Your task to perform on an android device: open app "YouTube Kids" (install if not already installed) and go to login screen Image 0: 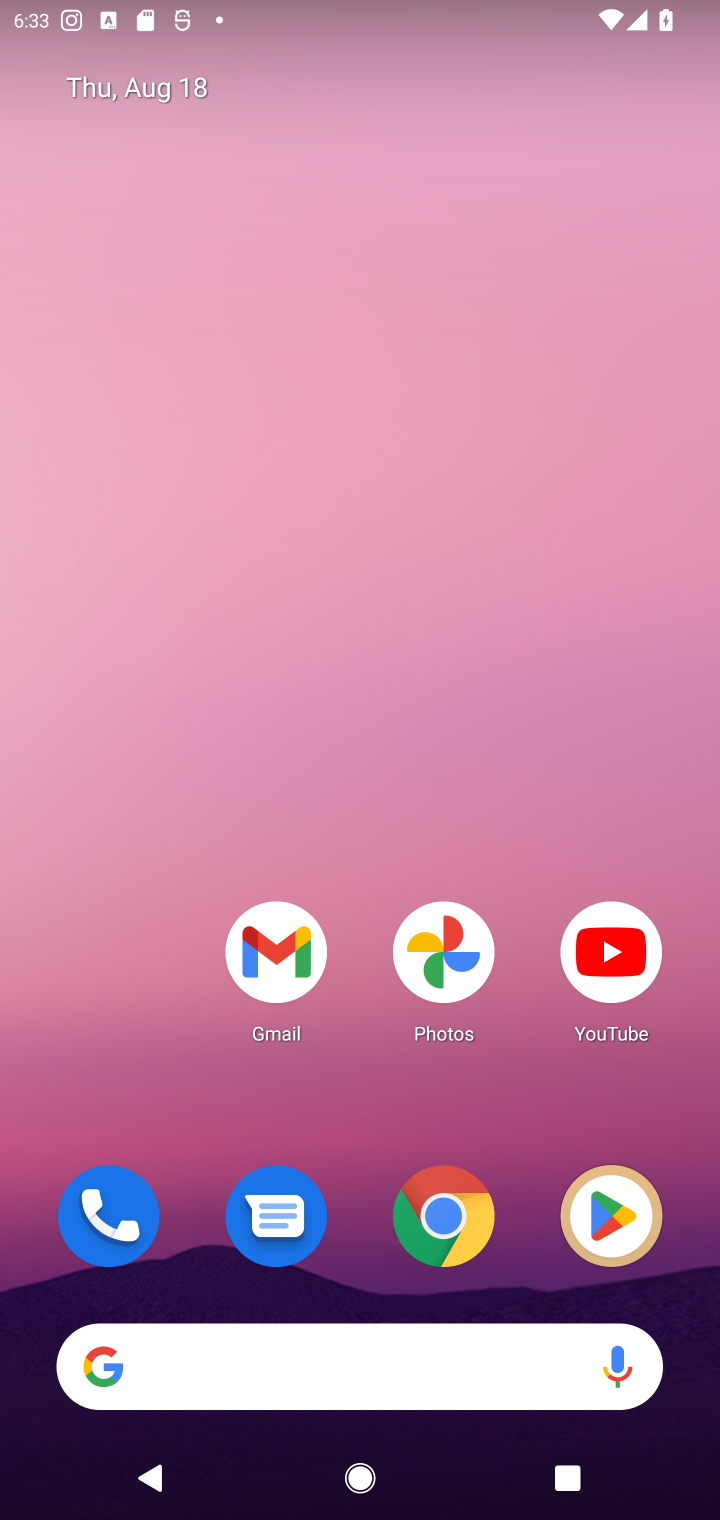
Step 0: click (646, 1213)
Your task to perform on an android device: open app "YouTube Kids" (install if not already installed) and go to login screen Image 1: 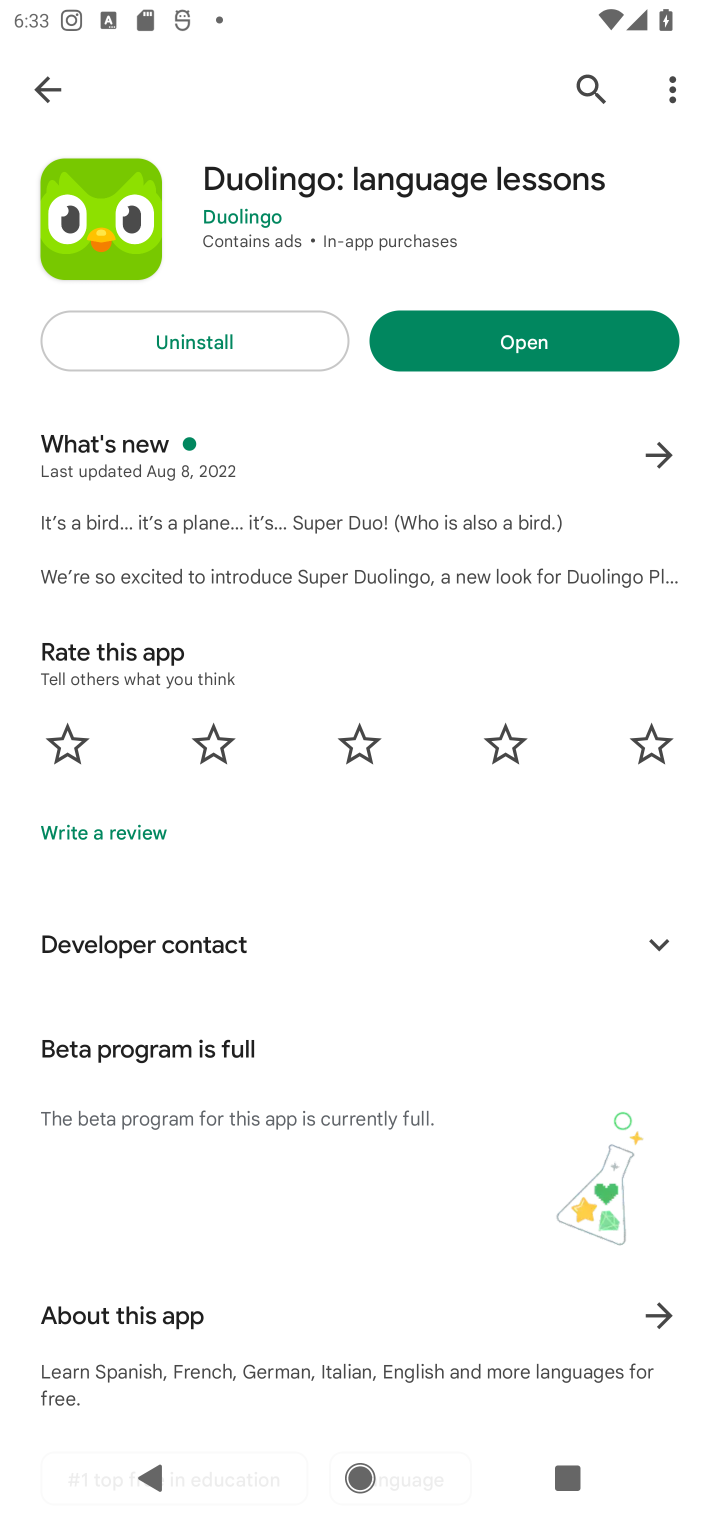
Step 1: click (576, 92)
Your task to perform on an android device: open app "YouTube Kids" (install if not already installed) and go to login screen Image 2: 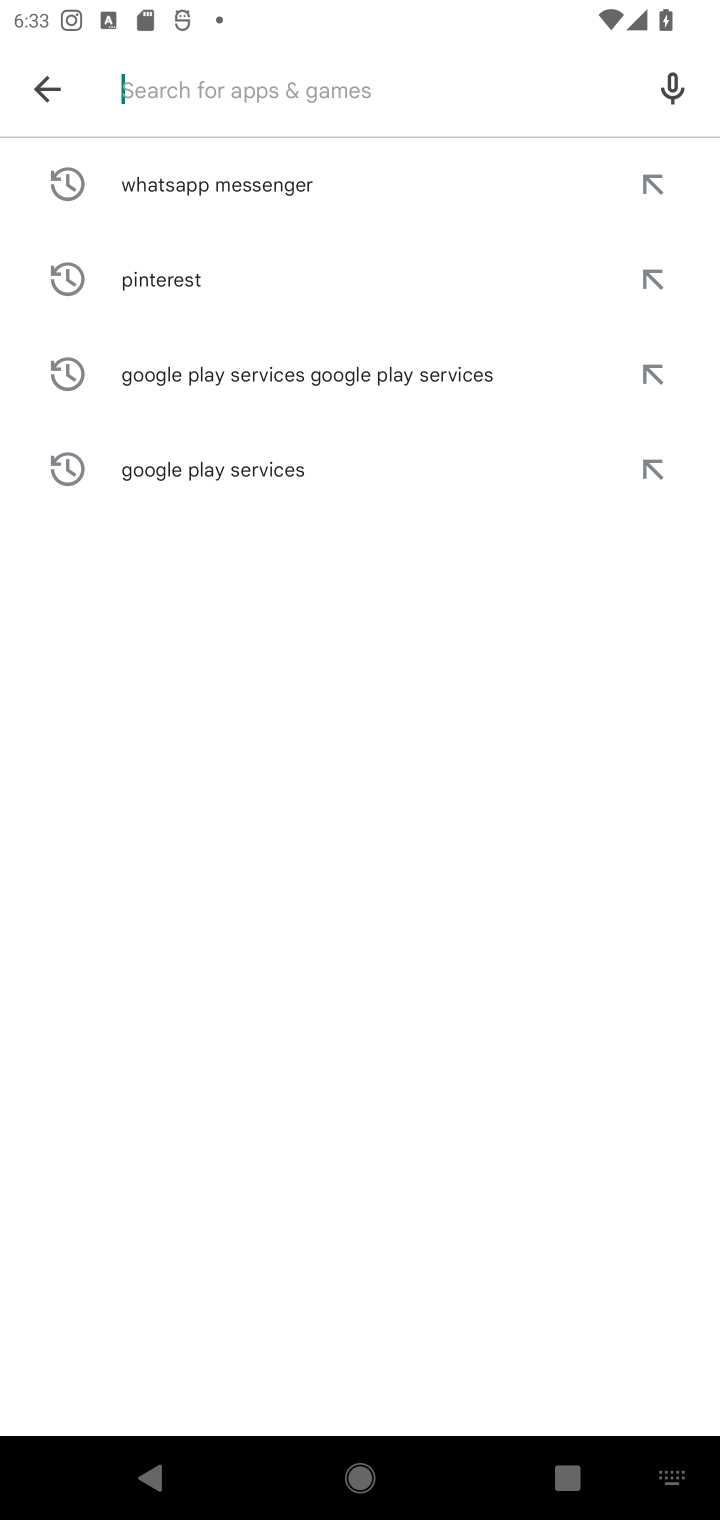
Step 2: type "YouTube Kids"
Your task to perform on an android device: open app "YouTube Kids" (install if not already installed) and go to login screen Image 3: 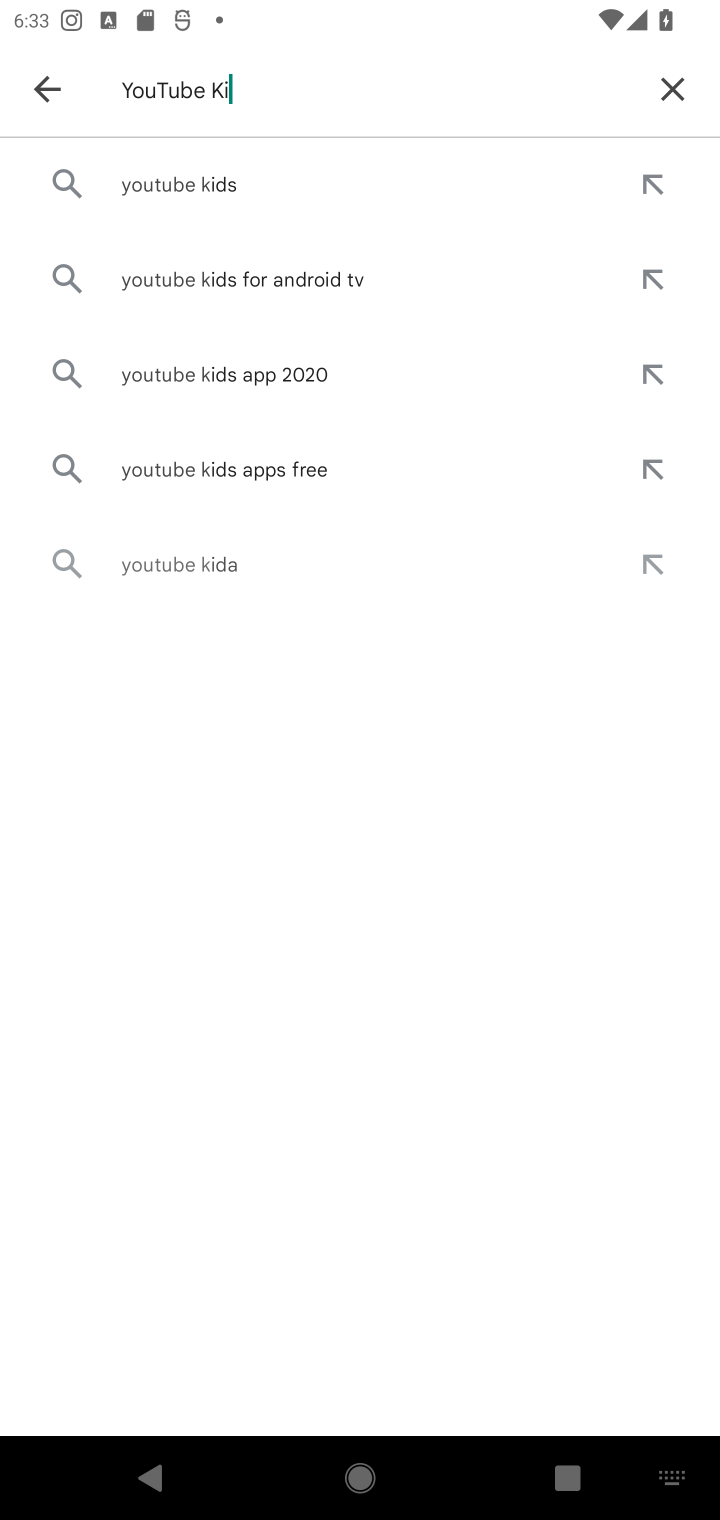
Step 3: type ""
Your task to perform on an android device: open app "YouTube Kids" (install if not already installed) and go to login screen Image 4: 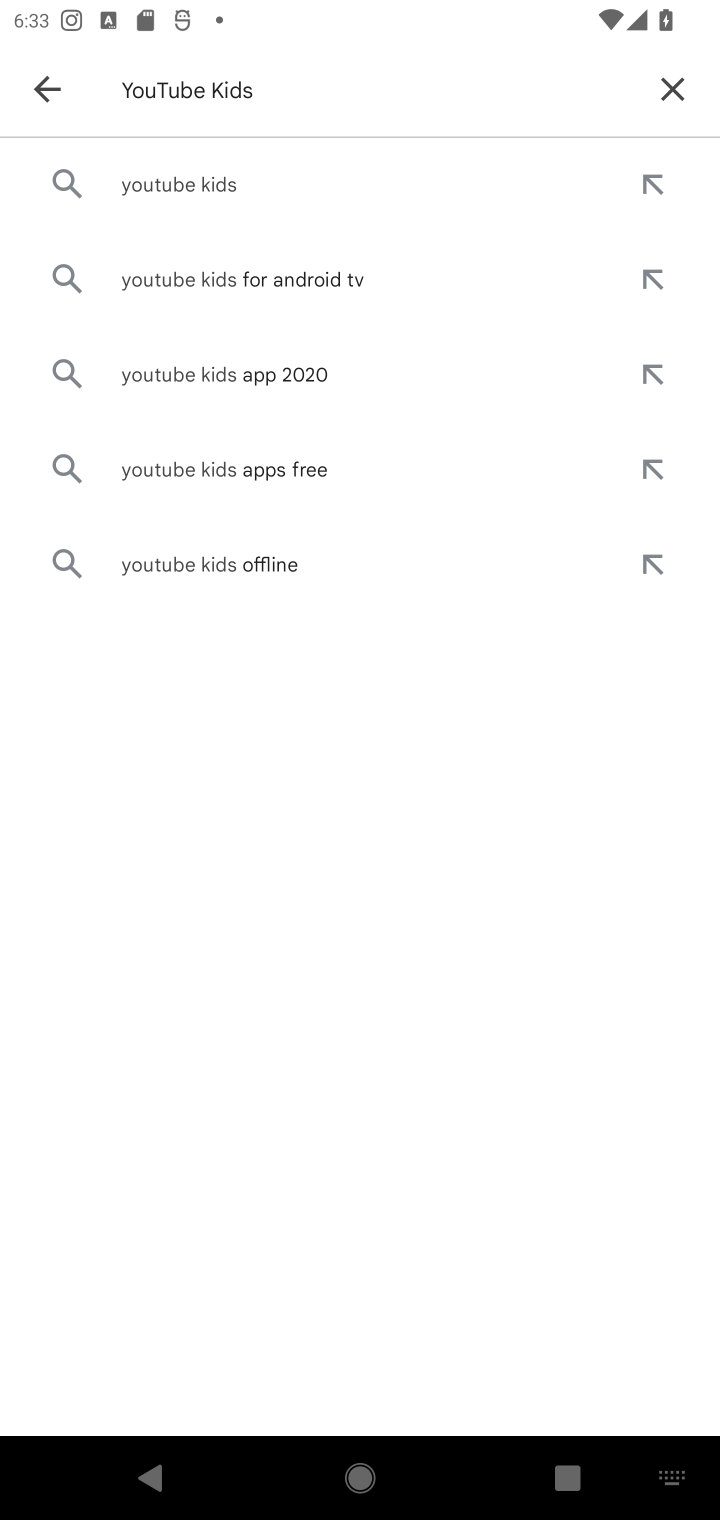
Step 4: click (257, 169)
Your task to perform on an android device: open app "YouTube Kids" (install if not already installed) and go to login screen Image 5: 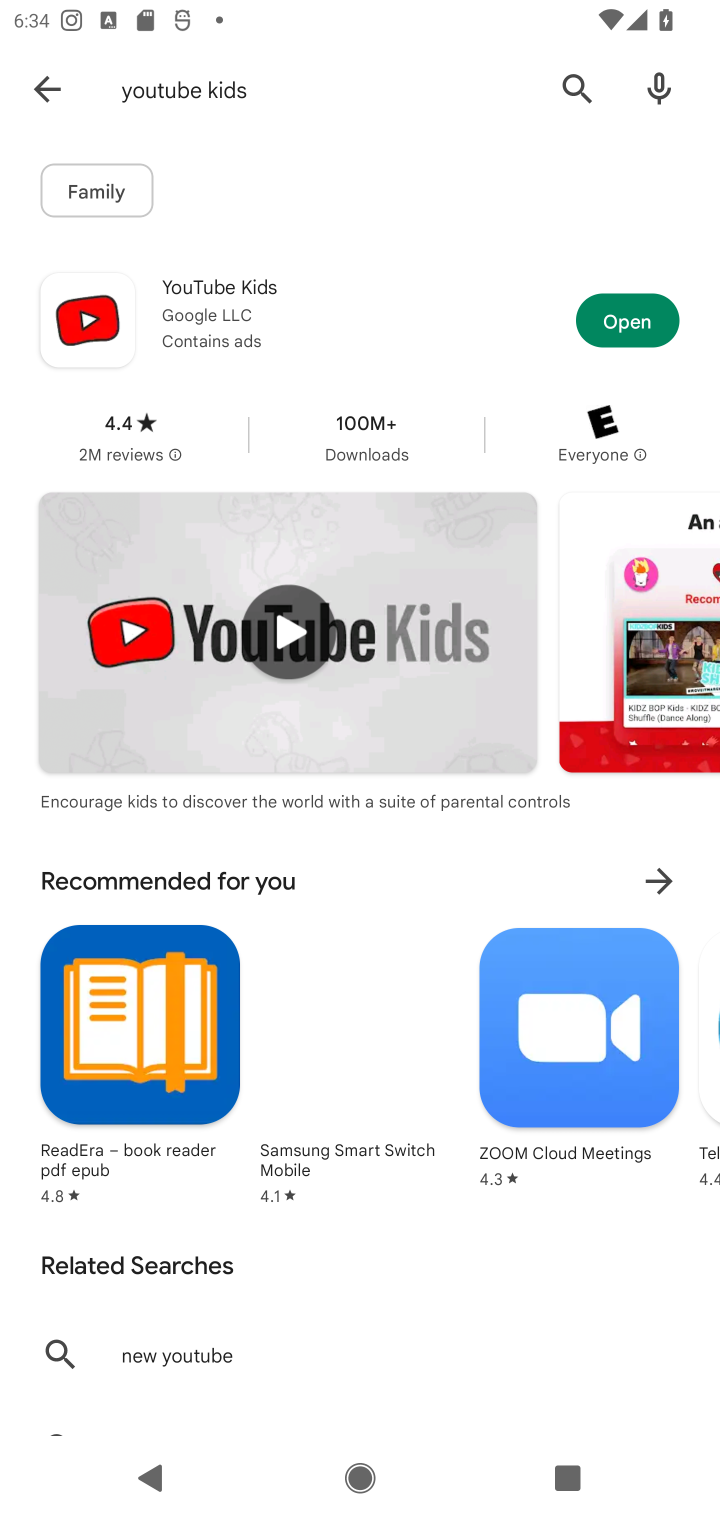
Step 5: click (626, 302)
Your task to perform on an android device: open app "YouTube Kids" (install if not already installed) and go to login screen Image 6: 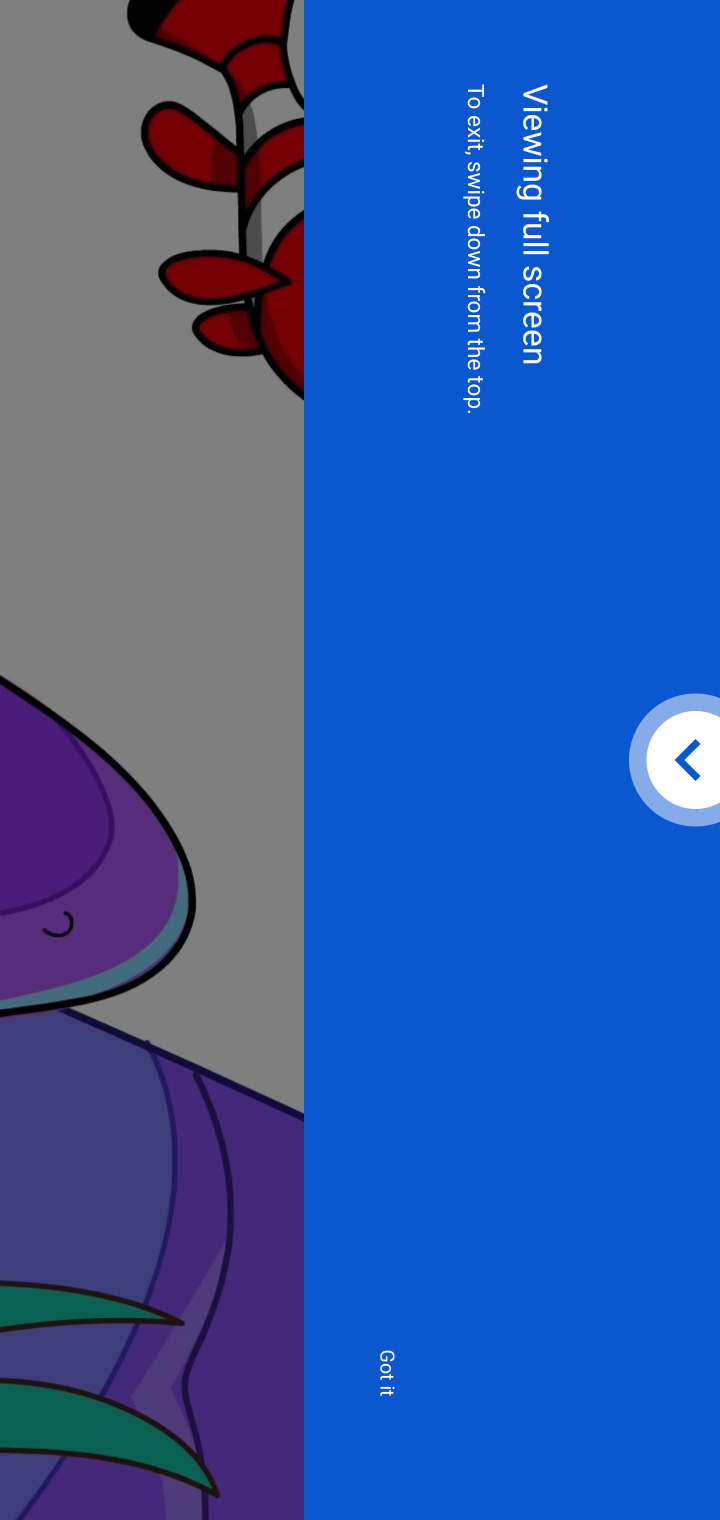
Step 6: task complete